Your task to perform on an android device: toggle sleep mode Image 0: 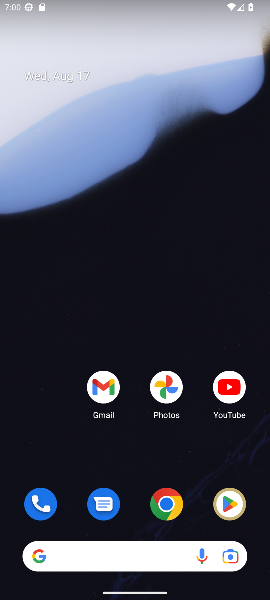
Step 0: drag from (172, 419) to (216, 106)
Your task to perform on an android device: toggle sleep mode Image 1: 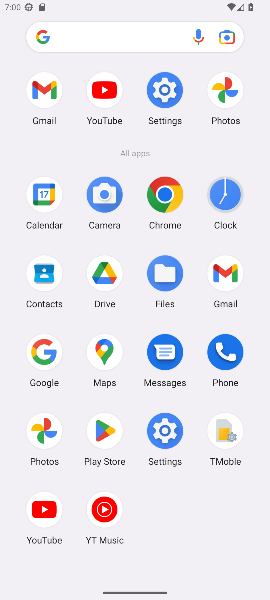
Step 1: click (173, 433)
Your task to perform on an android device: toggle sleep mode Image 2: 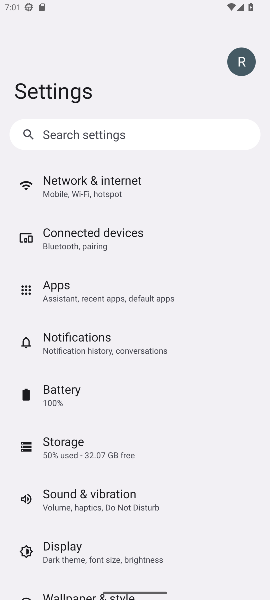
Step 2: task complete